Your task to perform on an android device: turn on the 12-hour format for clock Image 0: 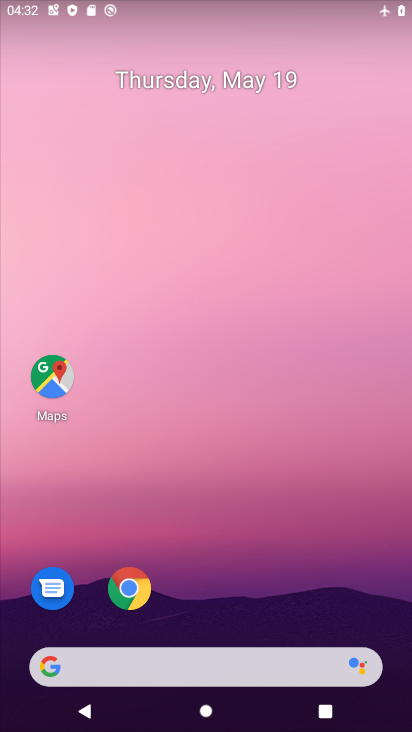
Step 0: drag from (263, 630) to (307, 171)
Your task to perform on an android device: turn on the 12-hour format for clock Image 1: 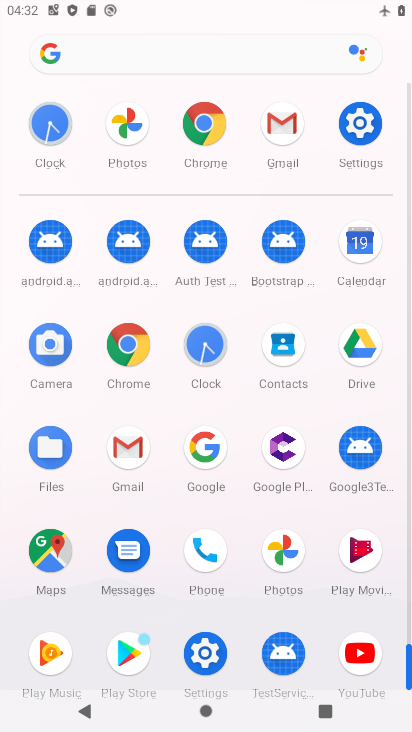
Step 1: click (217, 644)
Your task to perform on an android device: turn on the 12-hour format for clock Image 2: 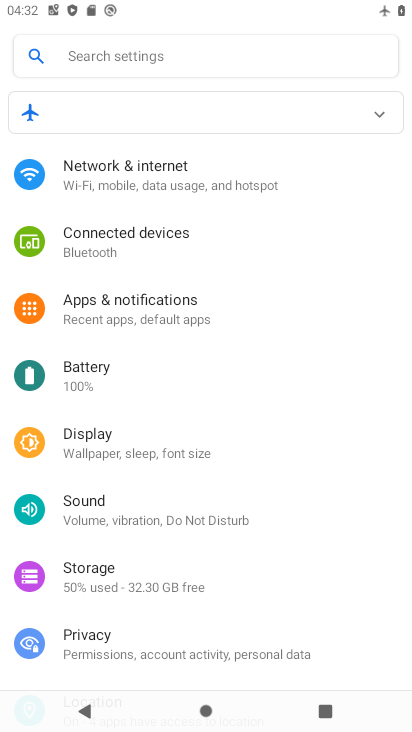
Step 2: drag from (185, 557) to (249, 211)
Your task to perform on an android device: turn on the 12-hour format for clock Image 3: 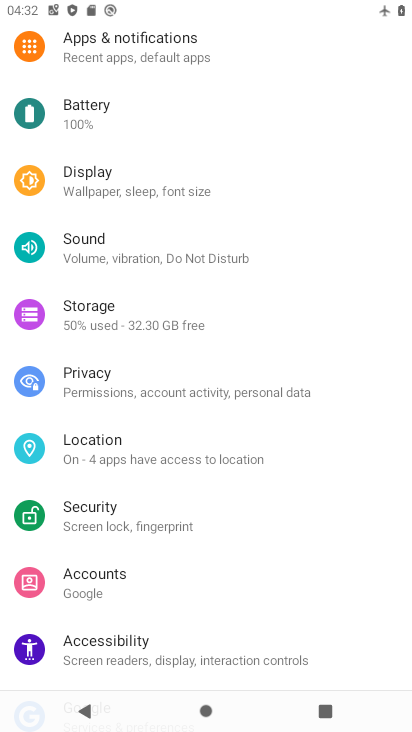
Step 3: drag from (174, 501) to (217, 96)
Your task to perform on an android device: turn on the 12-hour format for clock Image 4: 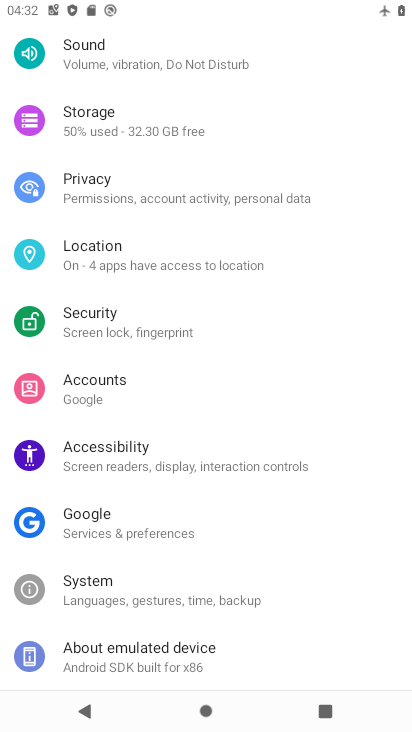
Step 4: click (141, 592)
Your task to perform on an android device: turn on the 12-hour format for clock Image 5: 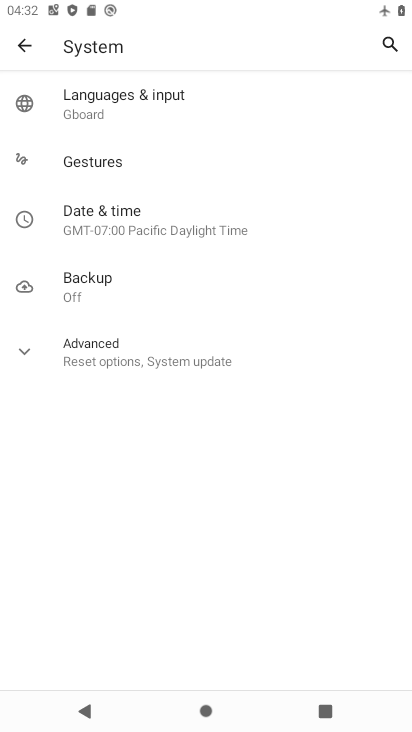
Step 5: click (122, 212)
Your task to perform on an android device: turn on the 12-hour format for clock Image 6: 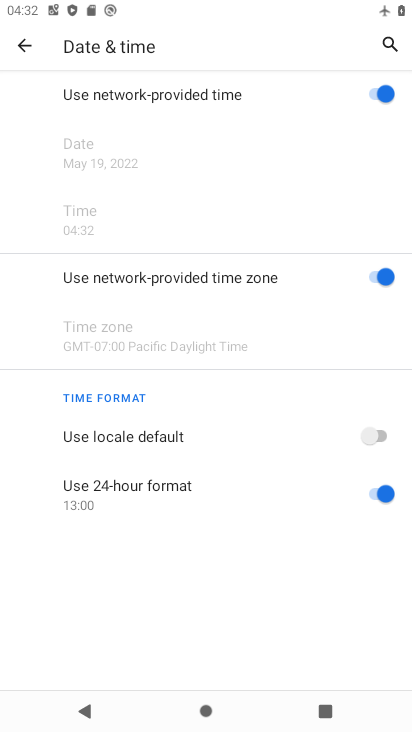
Step 6: click (376, 431)
Your task to perform on an android device: turn on the 12-hour format for clock Image 7: 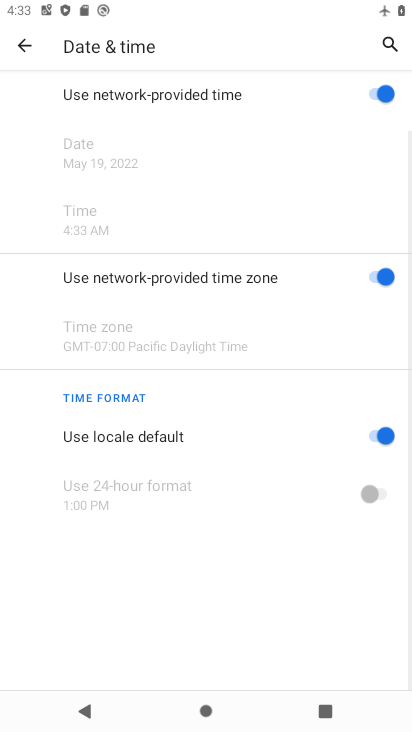
Step 7: task complete